Your task to perform on an android device: Show me recent news Image 0: 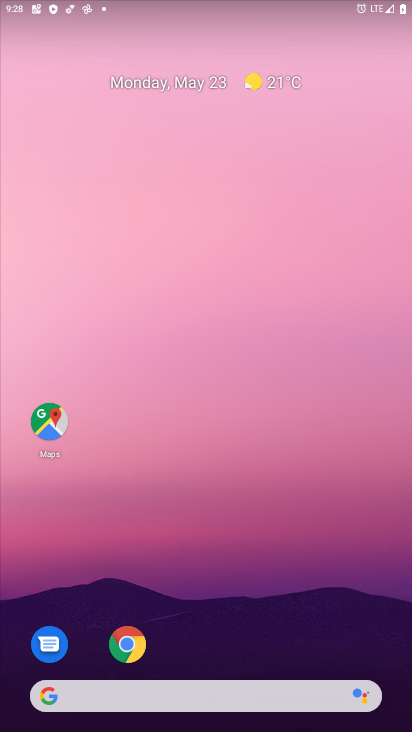
Step 0: click (249, 701)
Your task to perform on an android device: Show me recent news Image 1: 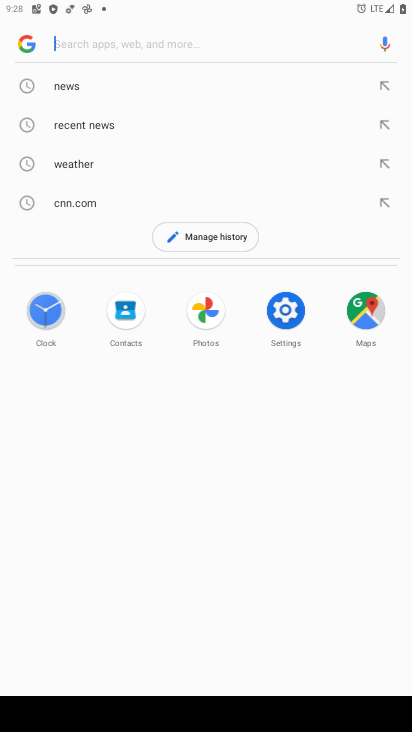
Step 1: type "Show me recent news"
Your task to perform on an android device: Show me recent news Image 2: 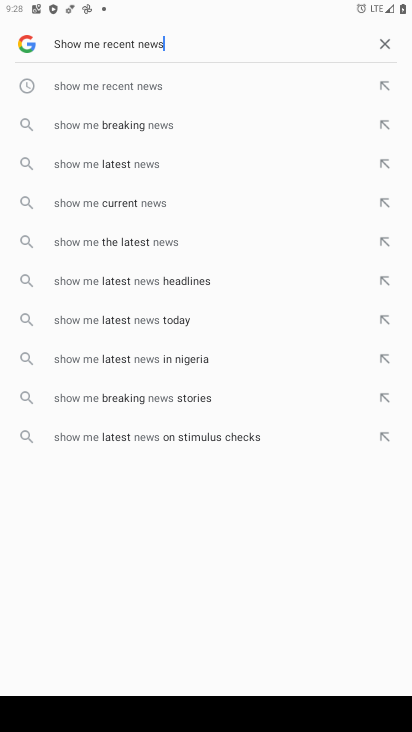
Step 2: click (168, 92)
Your task to perform on an android device: Show me recent news Image 3: 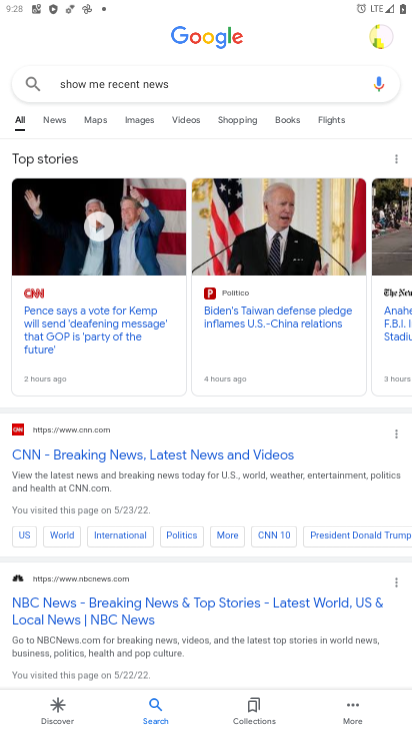
Step 3: task complete